Your task to perform on an android device: Open maps Image 0: 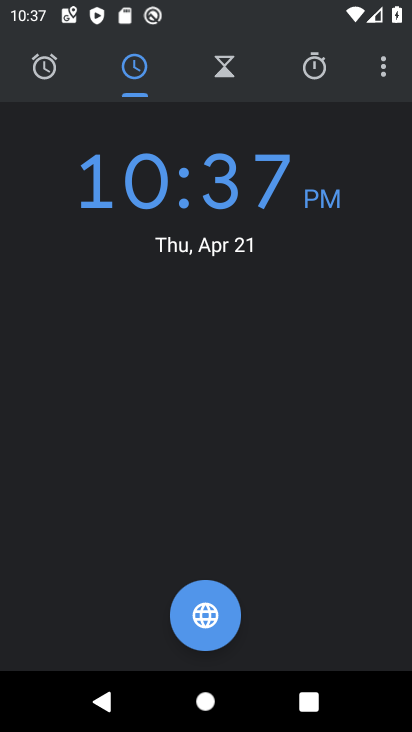
Step 0: press home button
Your task to perform on an android device: Open maps Image 1: 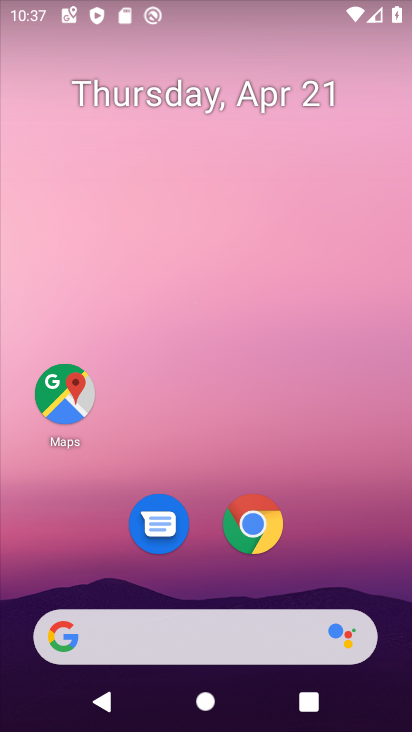
Step 1: click (71, 397)
Your task to perform on an android device: Open maps Image 2: 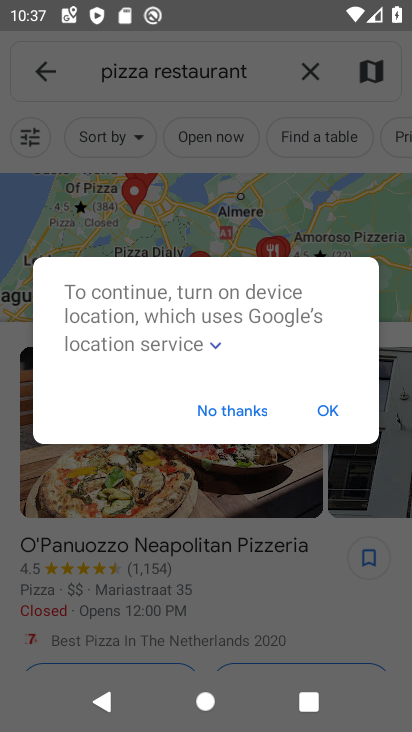
Step 2: click (226, 396)
Your task to perform on an android device: Open maps Image 3: 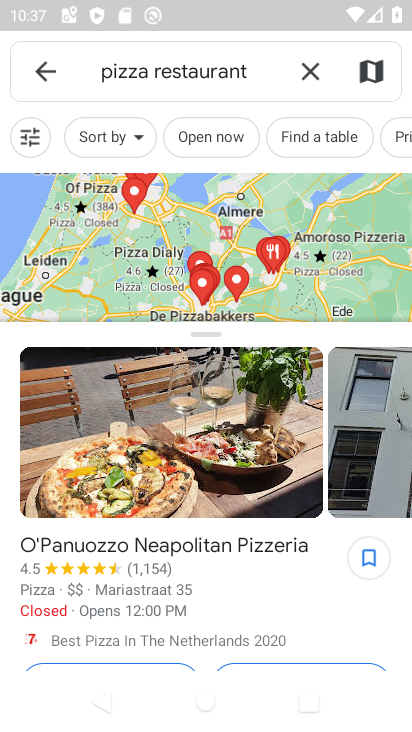
Step 3: click (312, 64)
Your task to perform on an android device: Open maps Image 4: 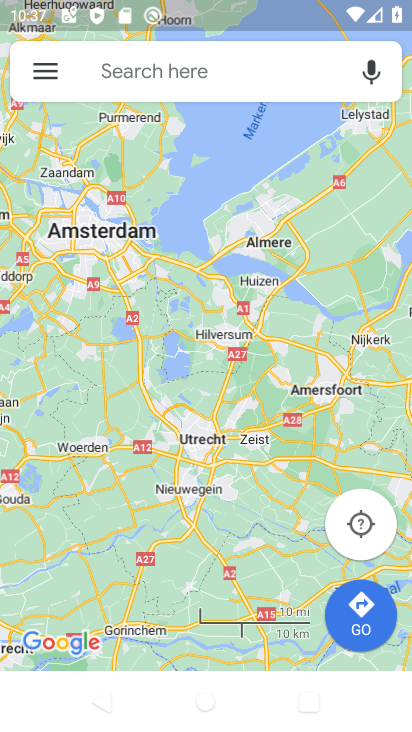
Step 4: task complete